Your task to perform on an android device: Add "asus rog" to the cart on walmart Image 0: 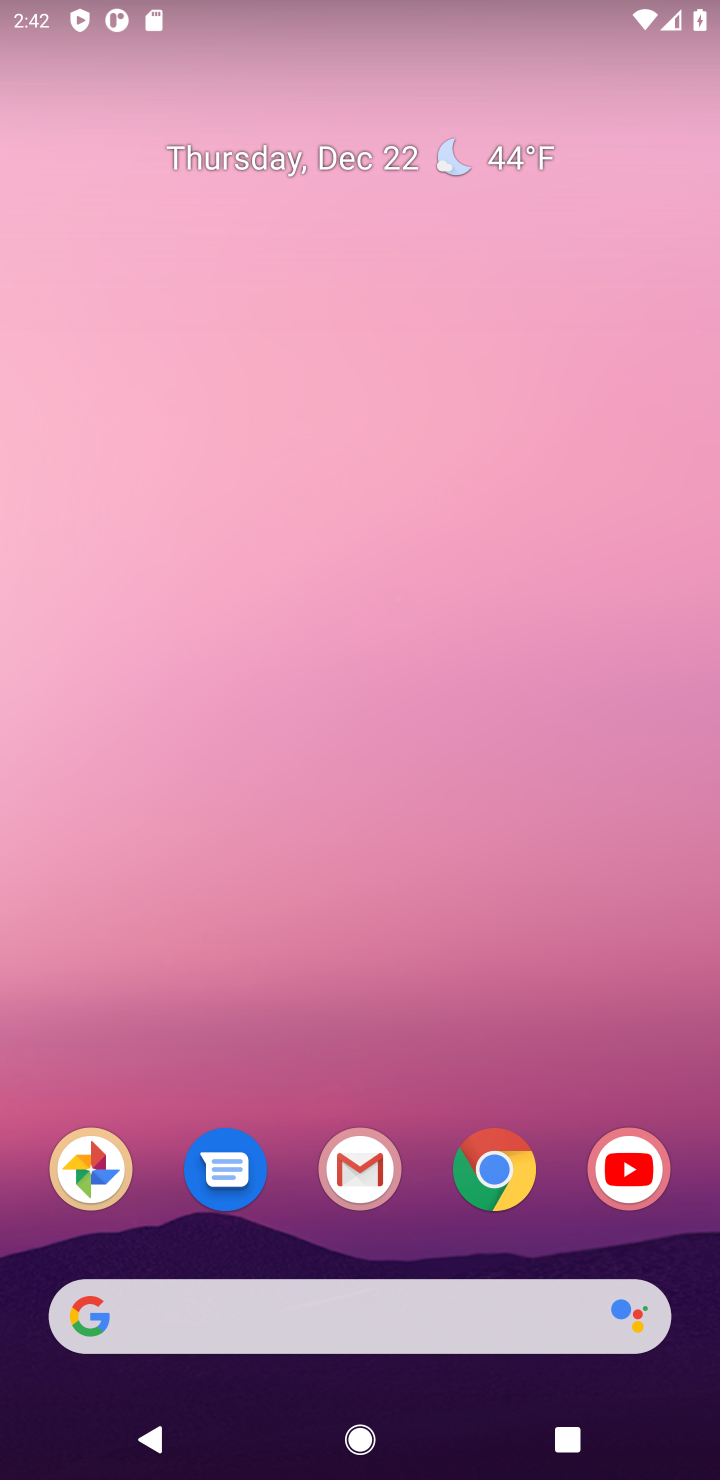
Step 0: click (499, 1185)
Your task to perform on an android device: Add "asus rog" to the cart on walmart Image 1: 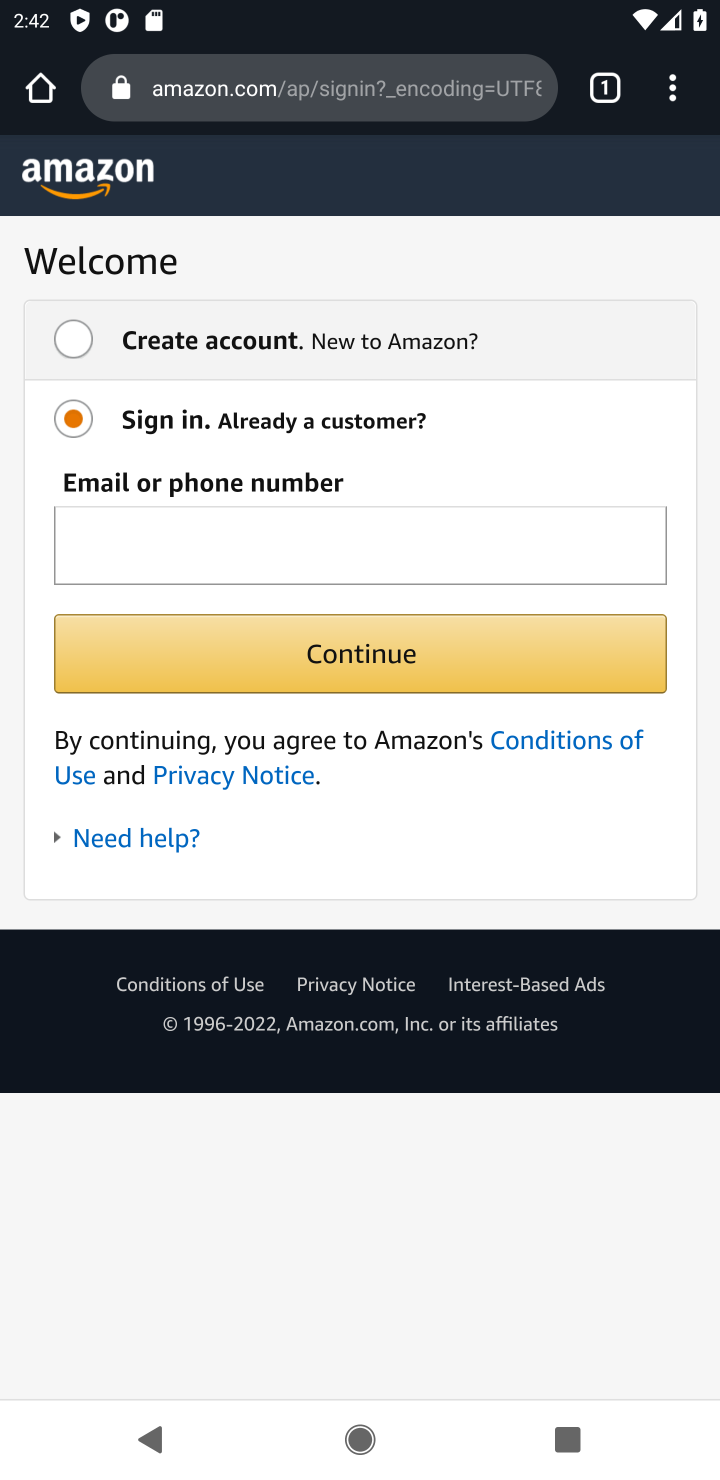
Step 1: click (291, 98)
Your task to perform on an android device: Add "asus rog" to the cart on walmart Image 2: 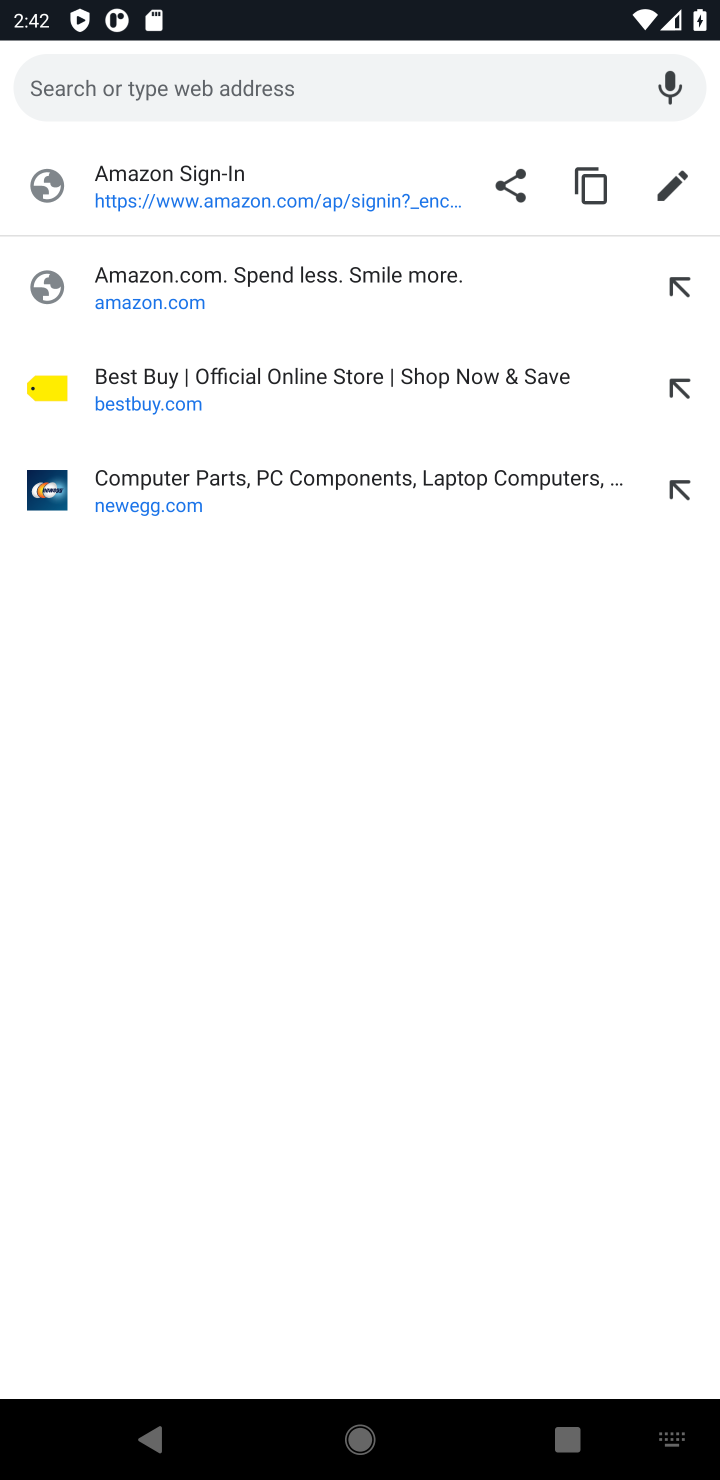
Step 2: type "walmart.com"
Your task to perform on an android device: Add "asus rog" to the cart on walmart Image 3: 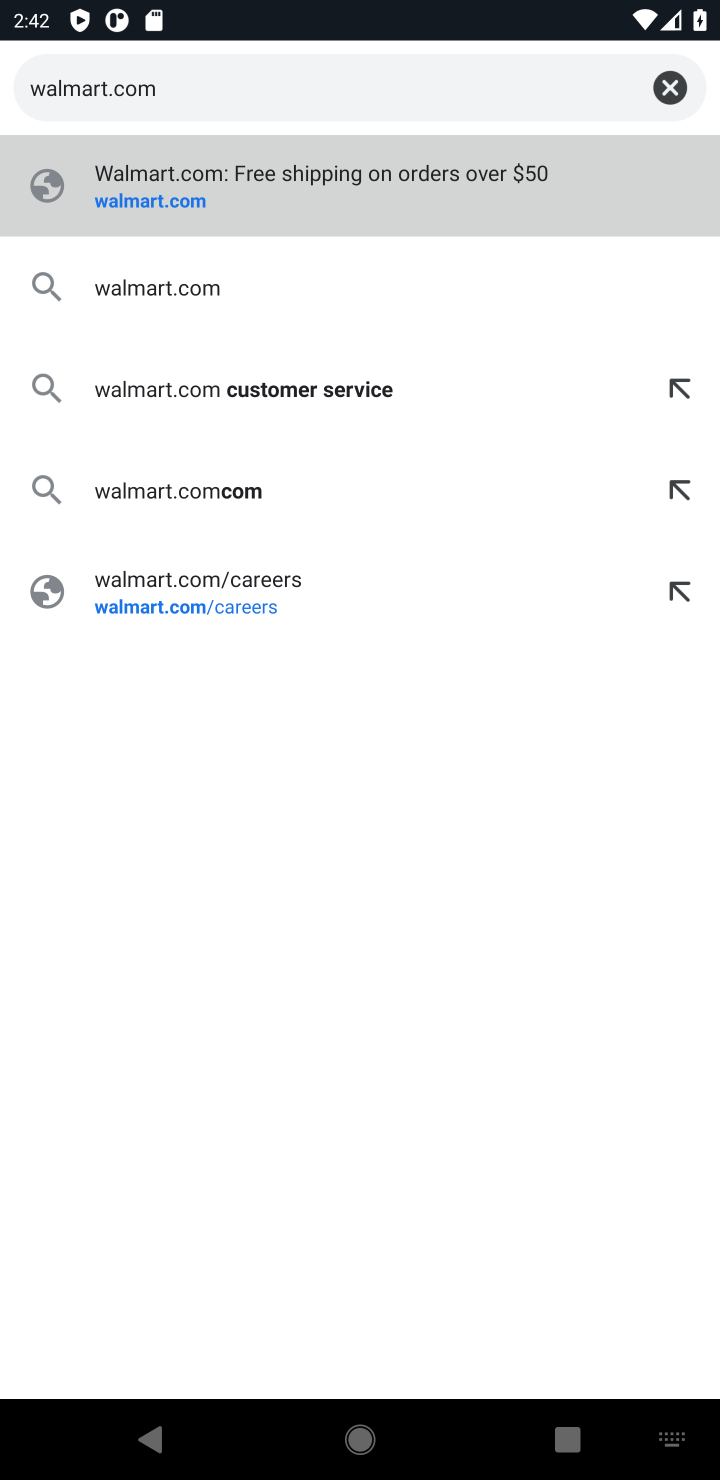
Step 3: click (140, 204)
Your task to perform on an android device: Add "asus rog" to the cart on walmart Image 4: 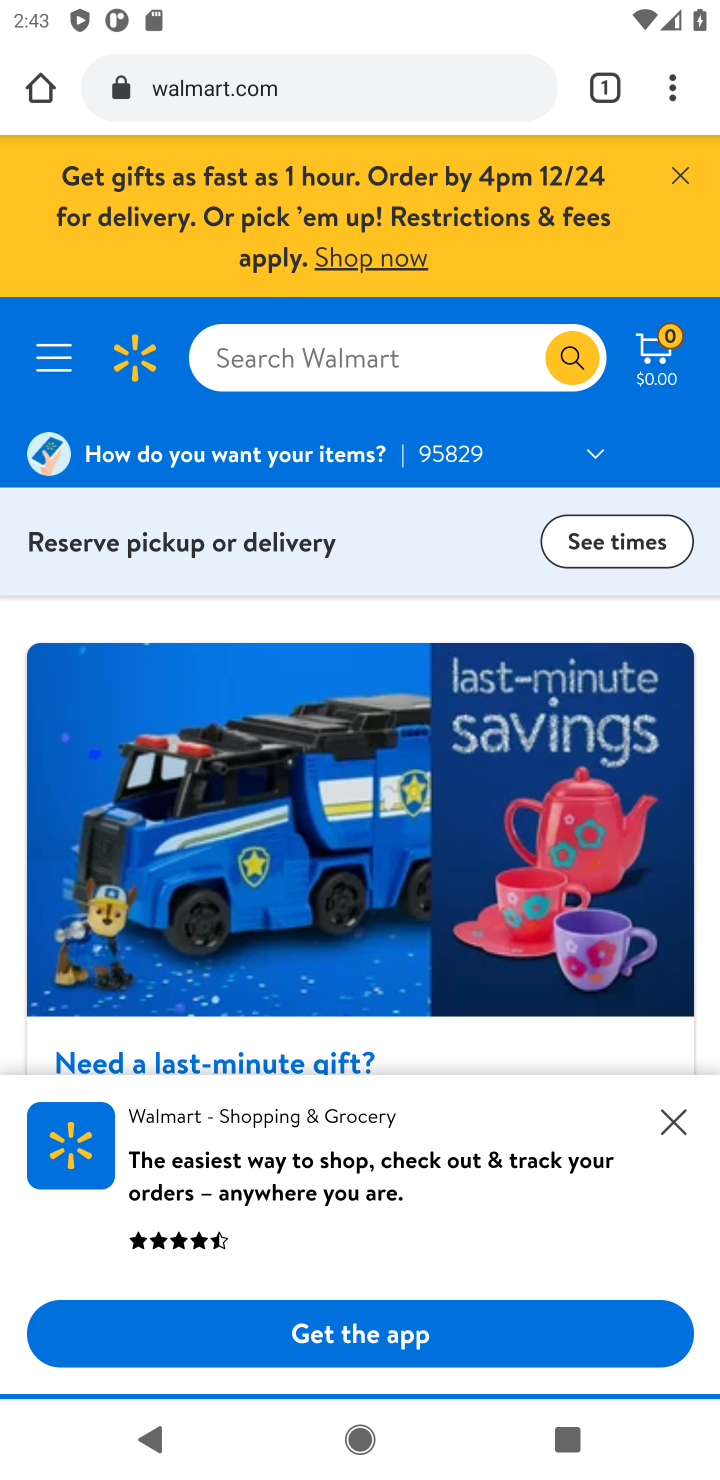
Step 4: click (316, 371)
Your task to perform on an android device: Add "asus rog" to the cart on walmart Image 5: 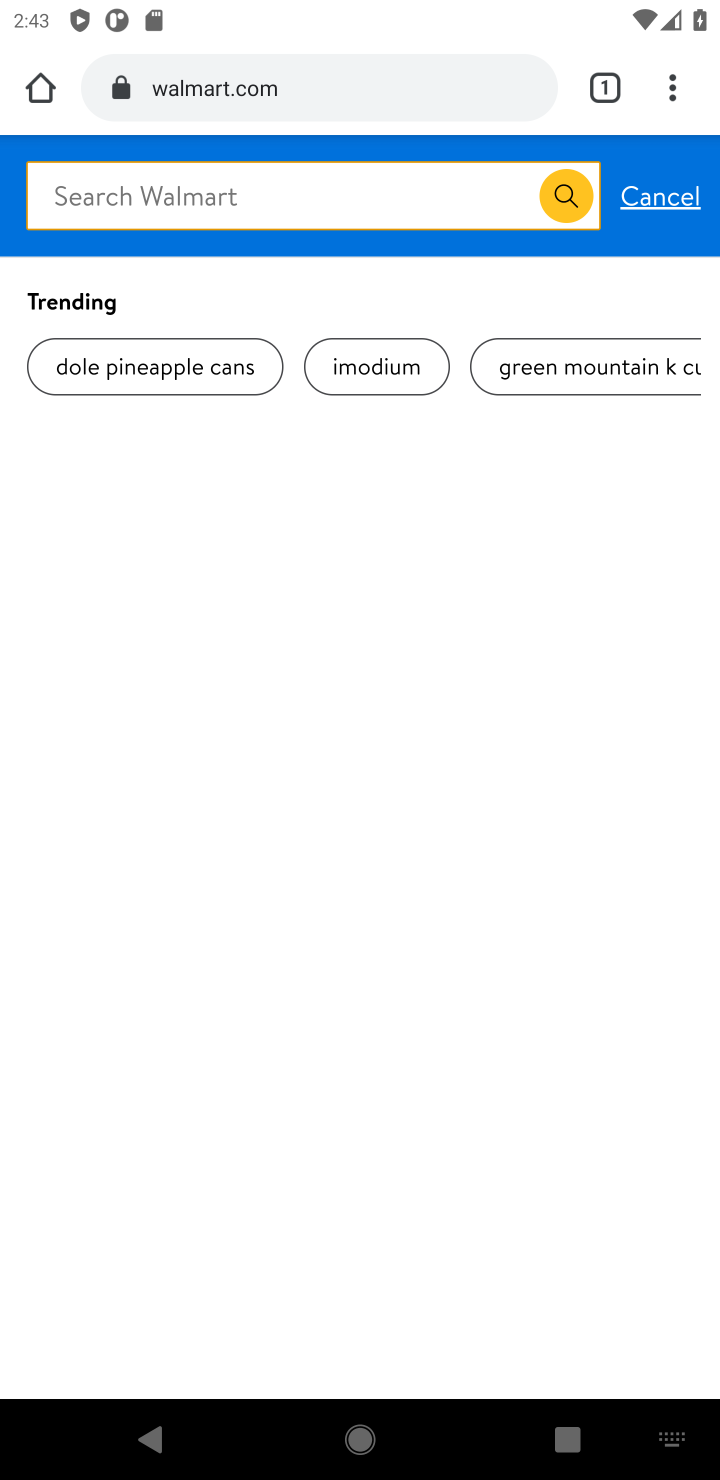
Step 5: type "asus rog"
Your task to perform on an android device: Add "asus rog" to the cart on walmart Image 6: 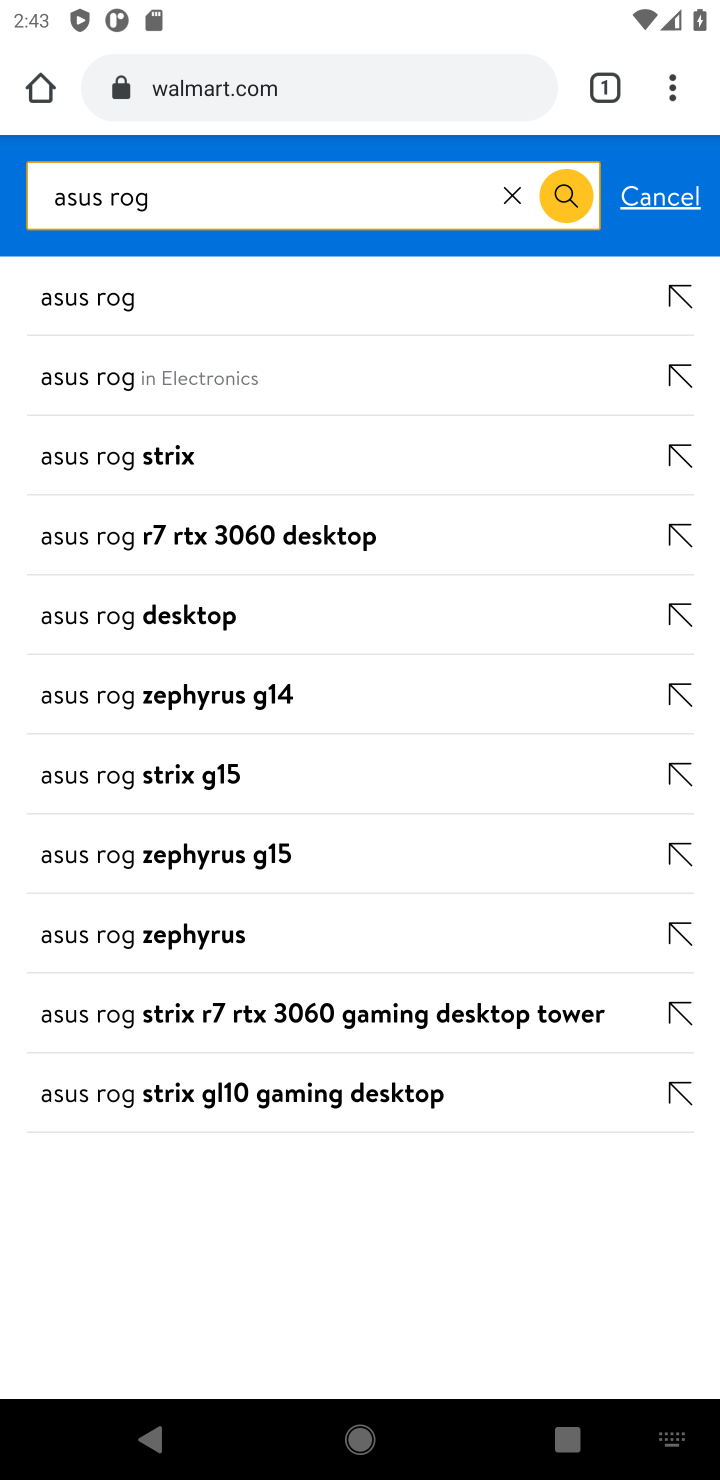
Step 6: click (75, 304)
Your task to perform on an android device: Add "asus rog" to the cart on walmart Image 7: 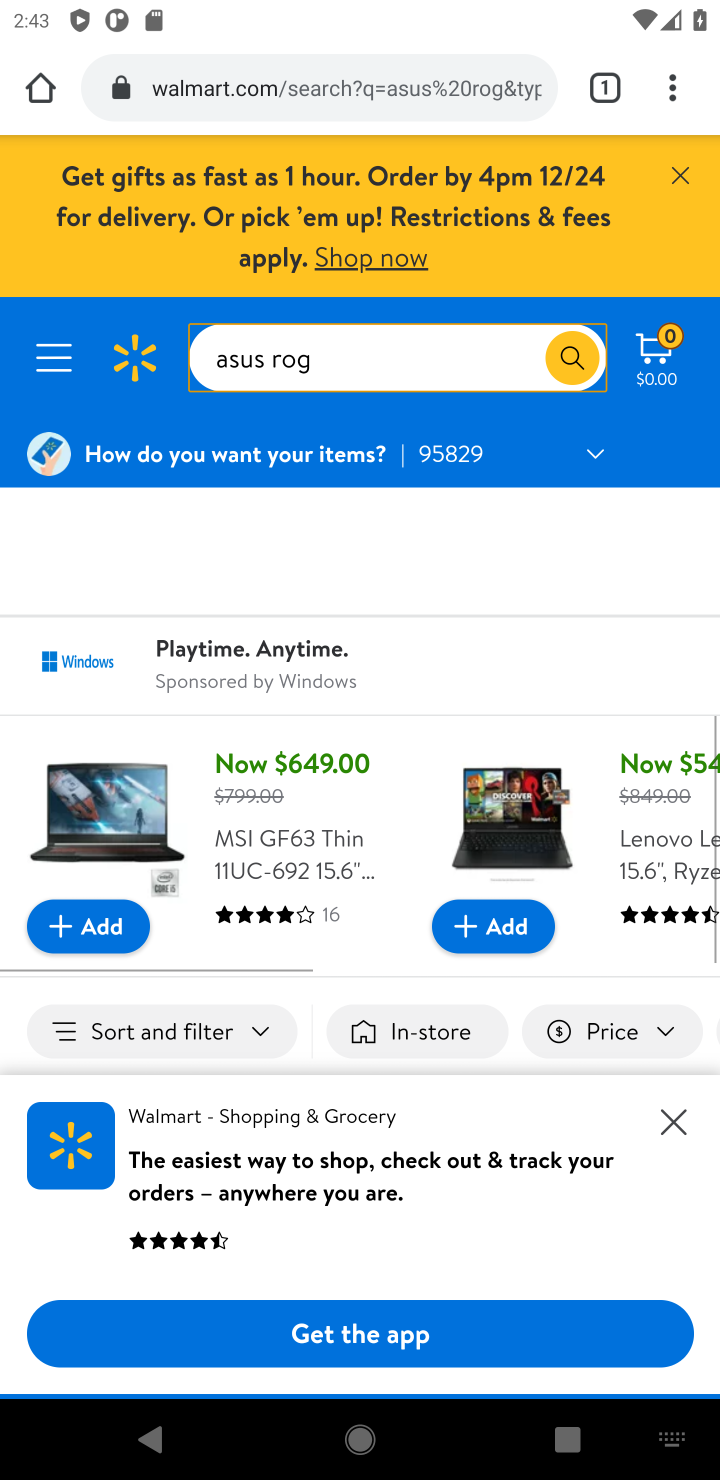
Step 7: click (669, 1125)
Your task to perform on an android device: Add "asus rog" to the cart on walmart Image 8: 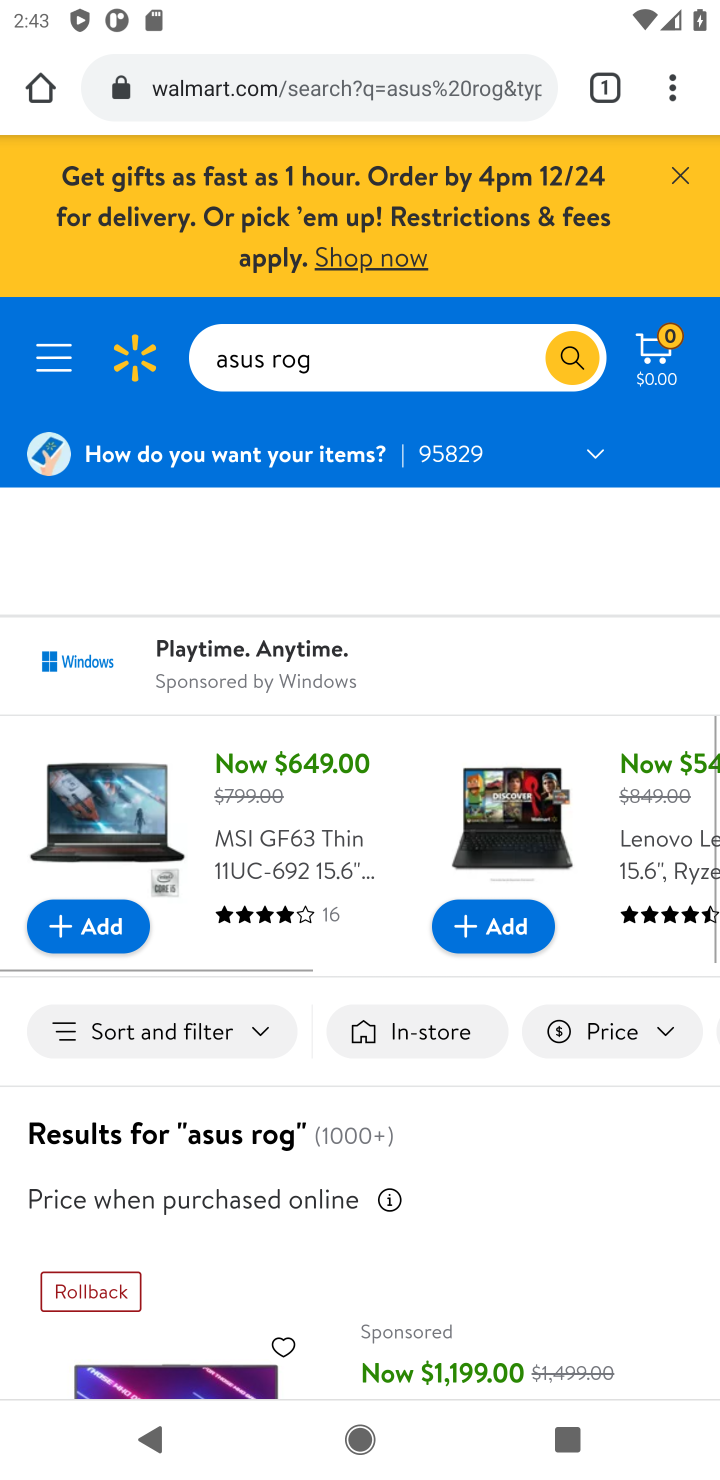
Step 8: drag from (260, 845) to (252, 442)
Your task to perform on an android device: Add "asus rog" to the cart on walmart Image 9: 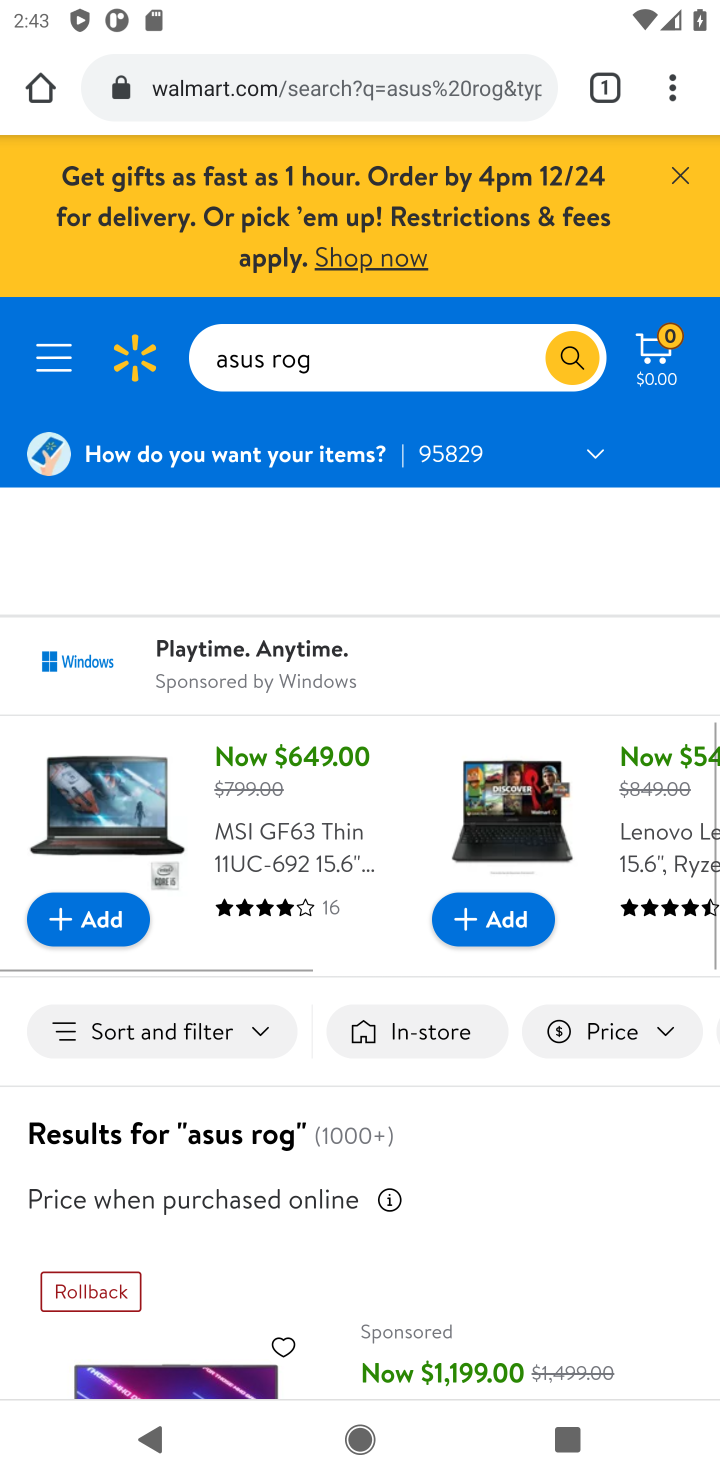
Step 9: drag from (392, 1070) to (386, 519)
Your task to perform on an android device: Add "asus rog" to the cart on walmart Image 10: 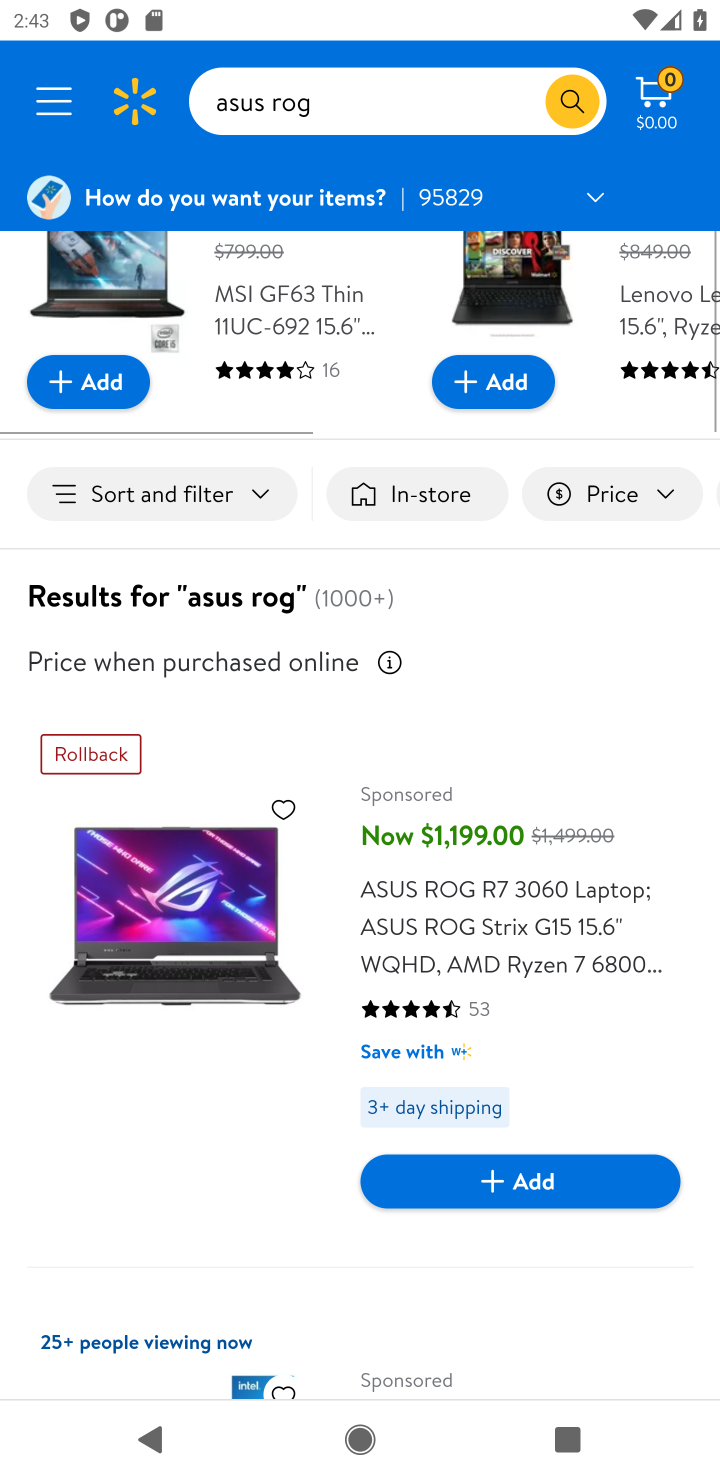
Step 10: click (485, 1187)
Your task to perform on an android device: Add "asus rog" to the cart on walmart Image 11: 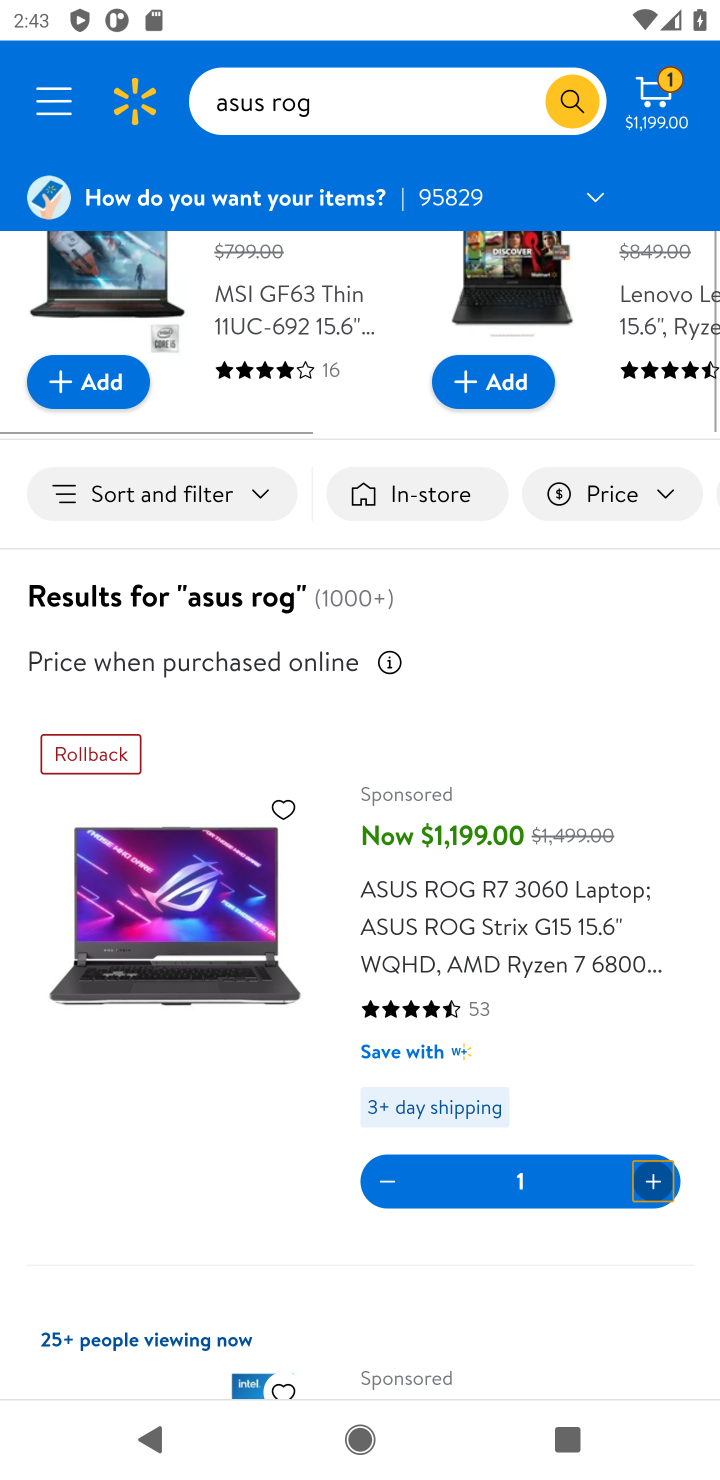
Step 11: task complete